Your task to perform on an android device: set default search engine in the chrome app Image 0: 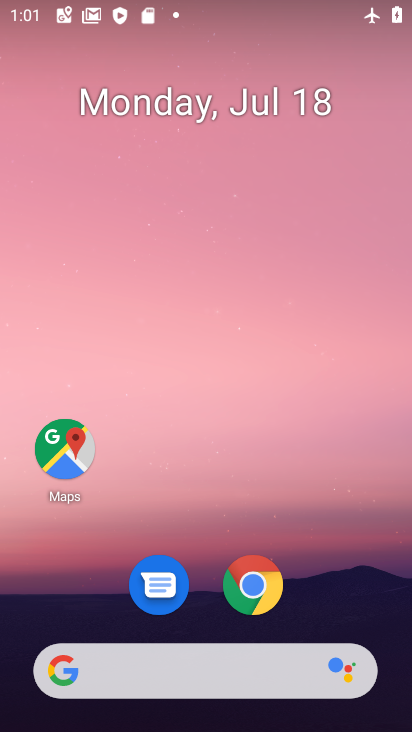
Step 0: click (255, 583)
Your task to perform on an android device: set default search engine in the chrome app Image 1: 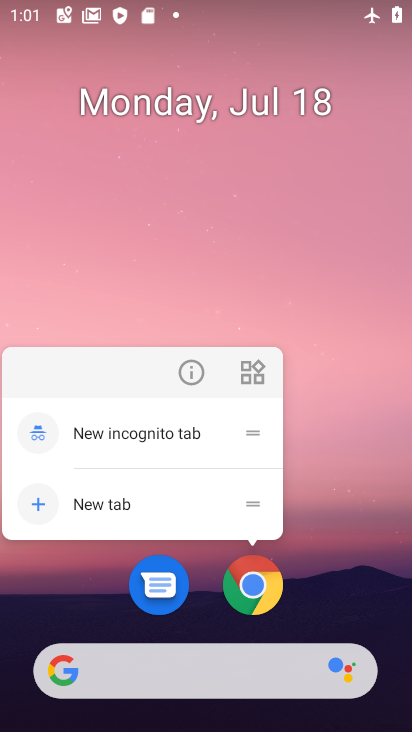
Step 1: click (253, 594)
Your task to perform on an android device: set default search engine in the chrome app Image 2: 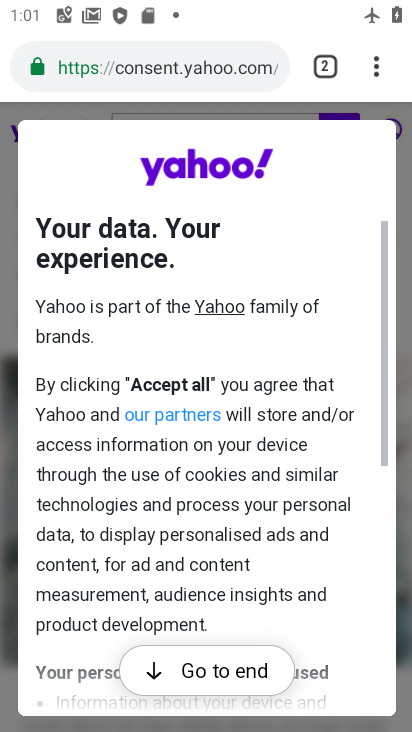
Step 2: drag from (371, 64) to (191, 579)
Your task to perform on an android device: set default search engine in the chrome app Image 3: 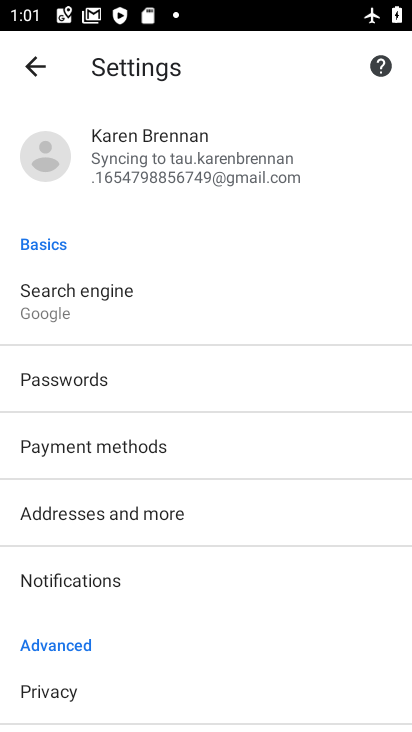
Step 3: click (74, 305)
Your task to perform on an android device: set default search engine in the chrome app Image 4: 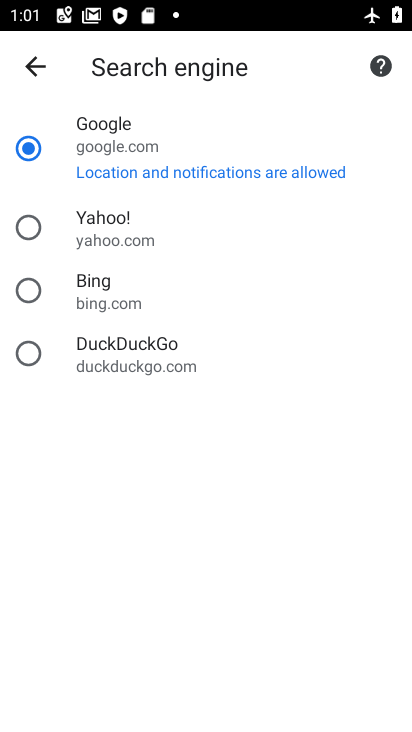
Step 4: click (36, 223)
Your task to perform on an android device: set default search engine in the chrome app Image 5: 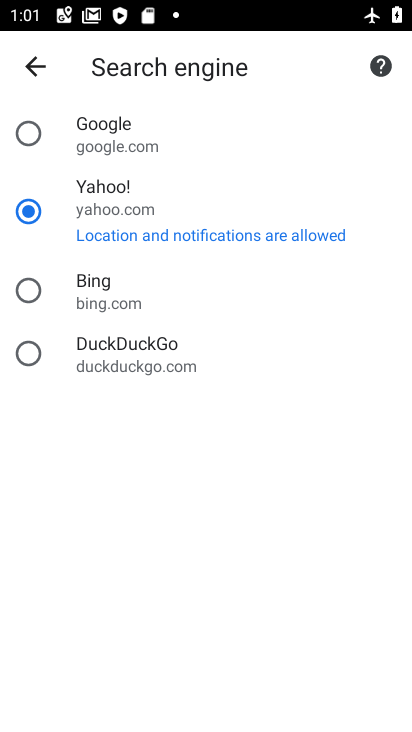
Step 5: task complete